Your task to perform on an android device: Open Google Chrome and open the bookmarks view Image 0: 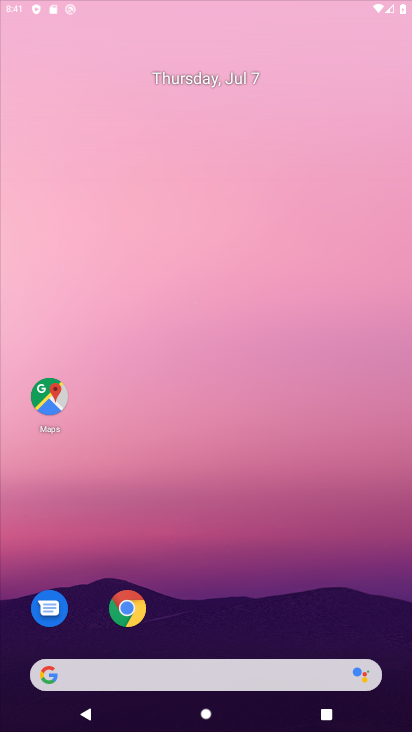
Step 0: press home button
Your task to perform on an android device: Open Google Chrome and open the bookmarks view Image 1: 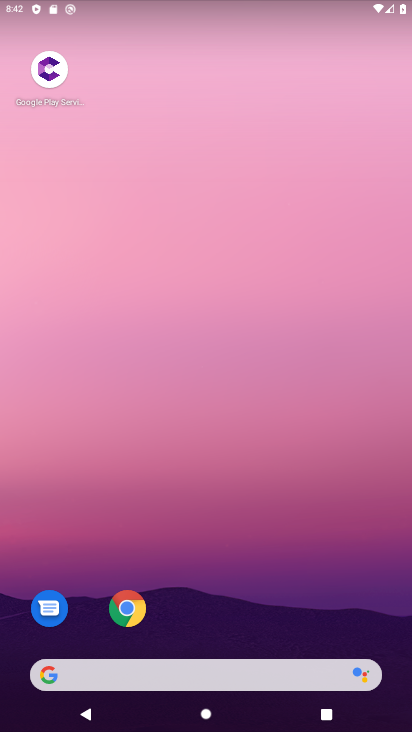
Step 1: click (120, 605)
Your task to perform on an android device: Open Google Chrome and open the bookmarks view Image 2: 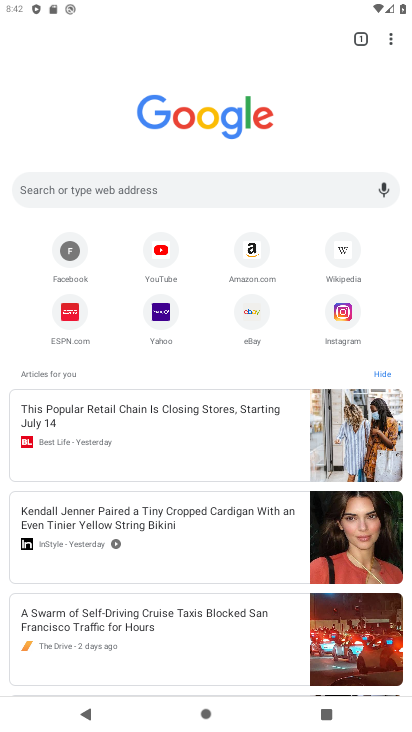
Step 2: click (384, 38)
Your task to perform on an android device: Open Google Chrome and open the bookmarks view Image 3: 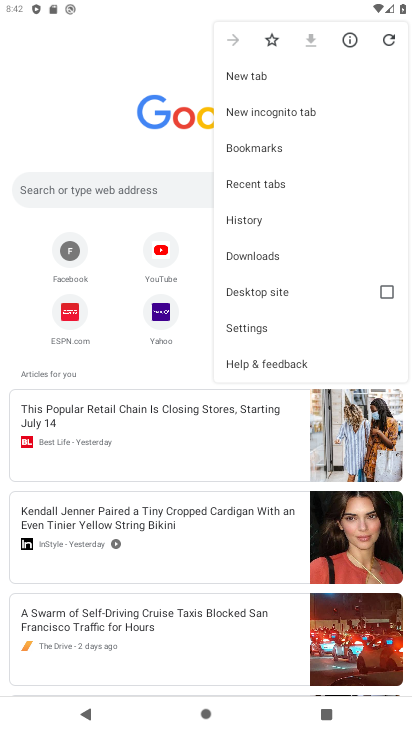
Step 3: click (280, 145)
Your task to perform on an android device: Open Google Chrome and open the bookmarks view Image 4: 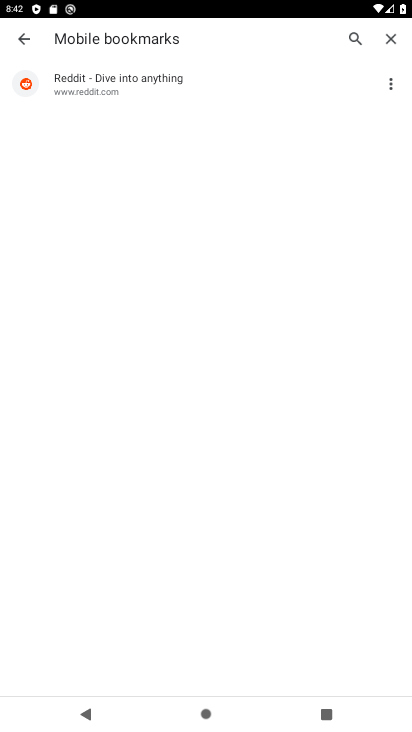
Step 4: task complete